Your task to perform on an android device: Go to Google Image 0: 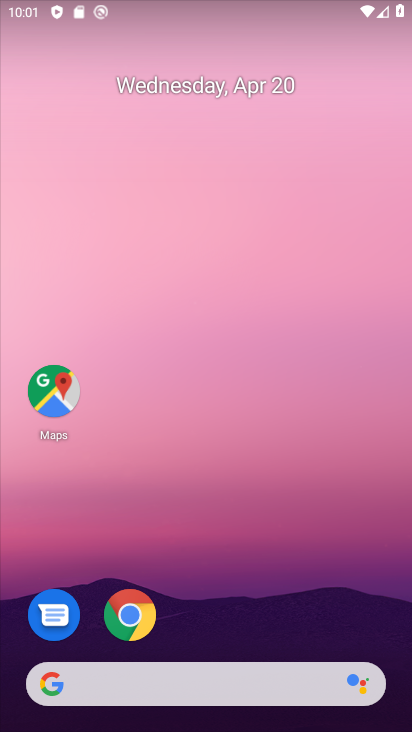
Step 0: drag from (197, 613) to (200, 76)
Your task to perform on an android device: Go to Google Image 1: 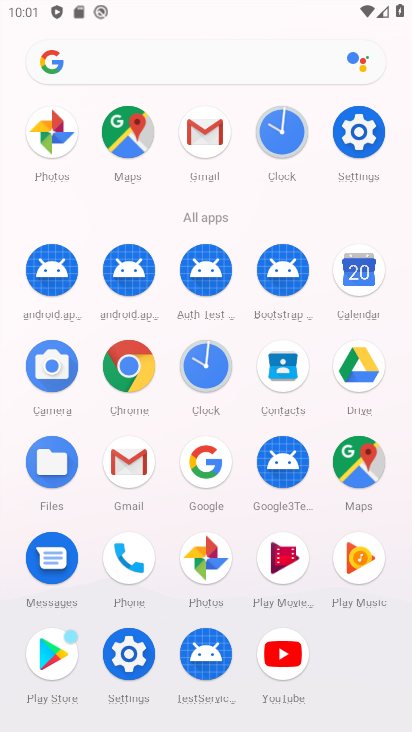
Step 1: click (203, 473)
Your task to perform on an android device: Go to Google Image 2: 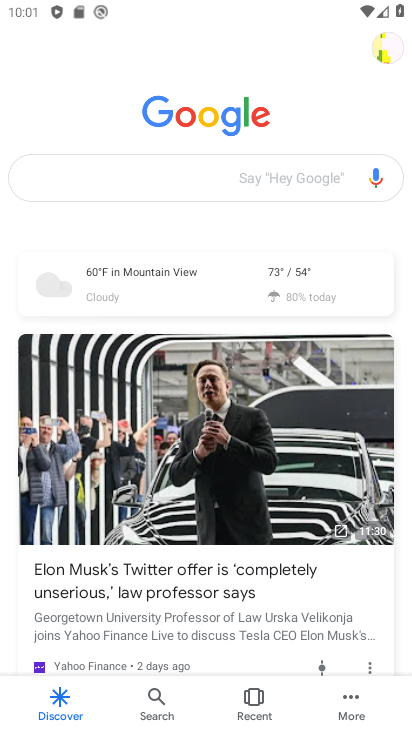
Step 2: task complete